Your task to perform on an android device: change keyboard looks Image 0: 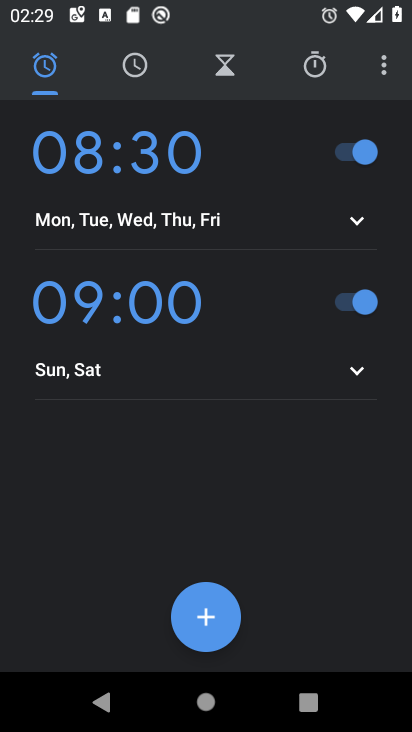
Step 0: press home button
Your task to perform on an android device: change keyboard looks Image 1: 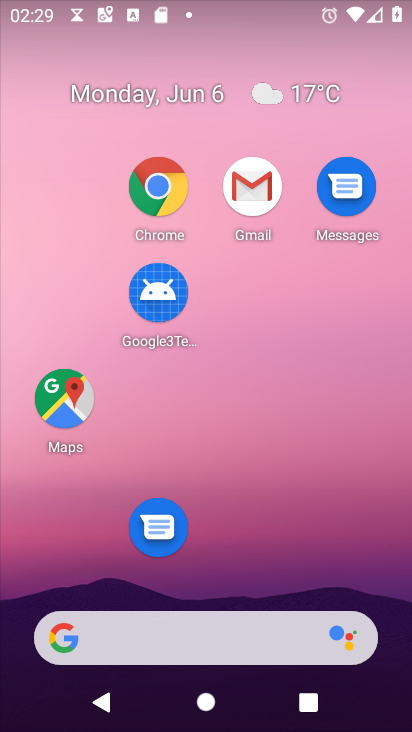
Step 1: drag from (301, 508) to (360, 27)
Your task to perform on an android device: change keyboard looks Image 2: 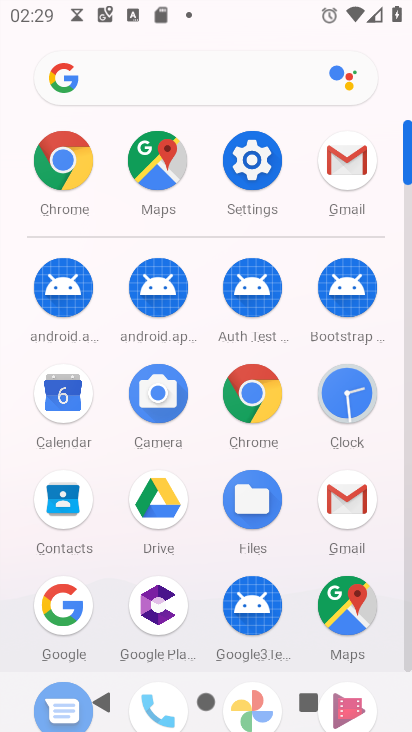
Step 2: click (246, 160)
Your task to perform on an android device: change keyboard looks Image 3: 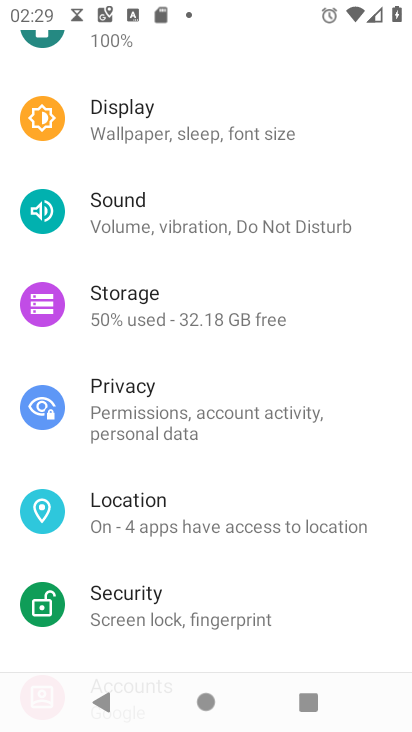
Step 3: click (343, 377)
Your task to perform on an android device: change keyboard looks Image 4: 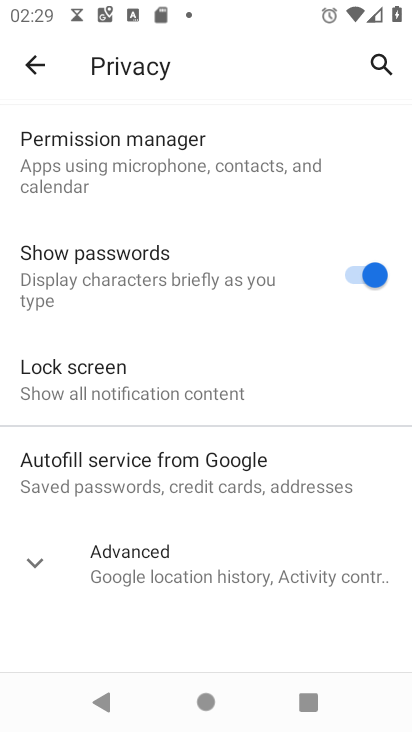
Step 4: task complete